Your task to perform on an android device: turn on bluetooth scan Image 0: 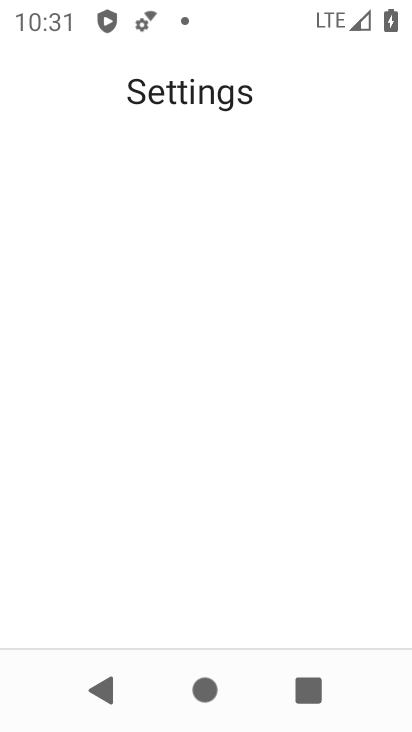
Step 0: drag from (206, 552) to (222, 242)
Your task to perform on an android device: turn on bluetooth scan Image 1: 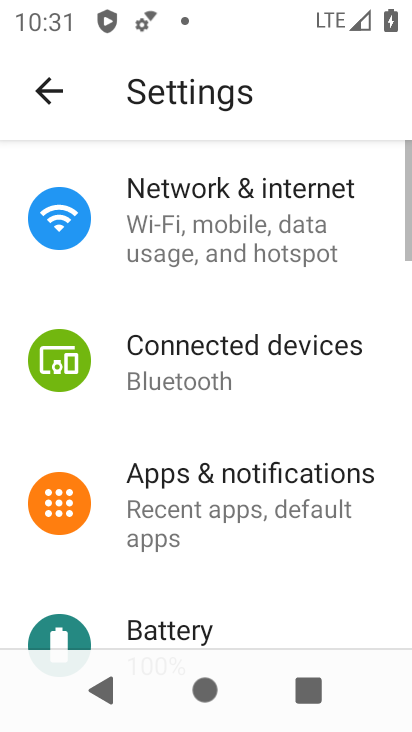
Step 1: drag from (231, 594) to (279, 234)
Your task to perform on an android device: turn on bluetooth scan Image 2: 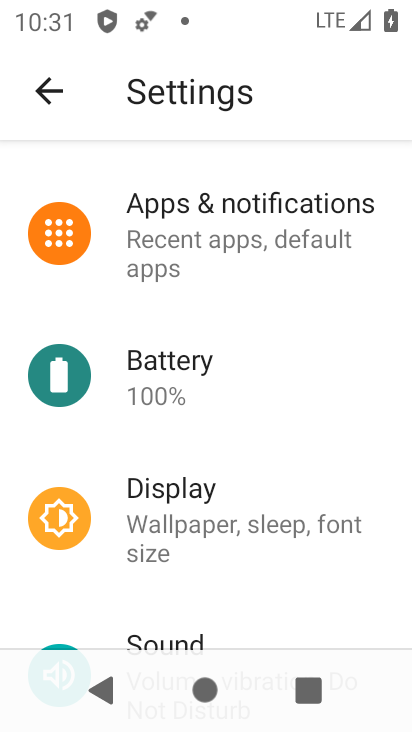
Step 2: drag from (222, 616) to (251, 370)
Your task to perform on an android device: turn on bluetooth scan Image 3: 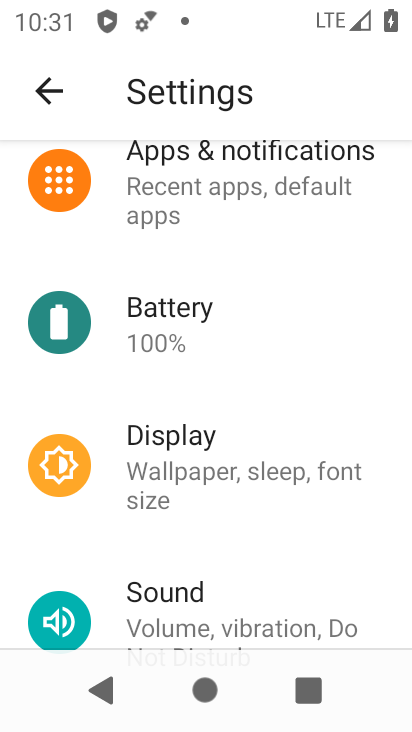
Step 3: drag from (250, 600) to (307, 334)
Your task to perform on an android device: turn on bluetooth scan Image 4: 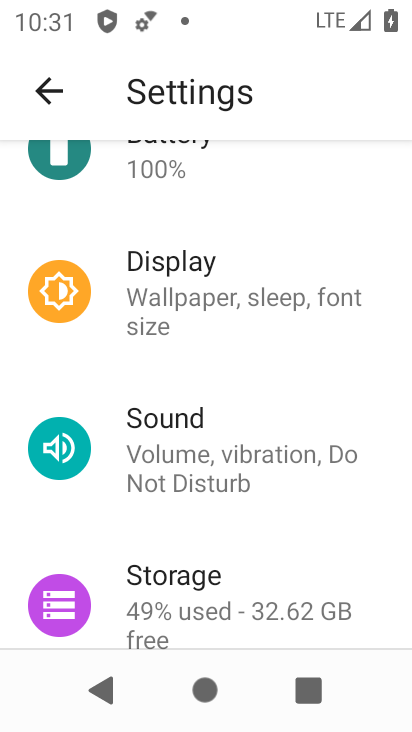
Step 4: drag from (253, 619) to (303, 328)
Your task to perform on an android device: turn on bluetooth scan Image 5: 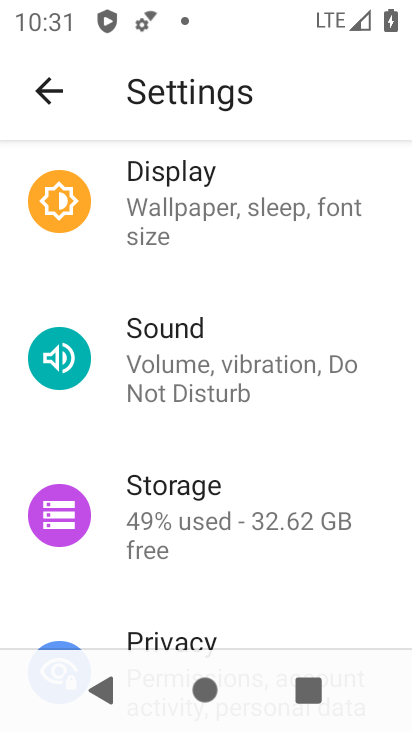
Step 5: drag from (217, 623) to (263, 360)
Your task to perform on an android device: turn on bluetooth scan Image 6: 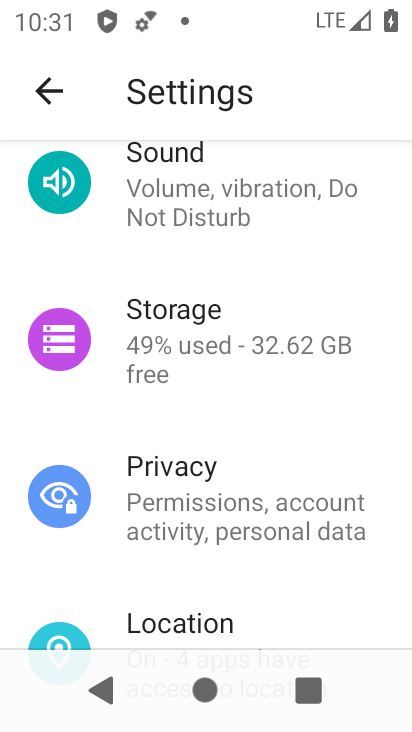
Step 6: click (219, 622)
Your task to perform on an android device: turn on bluetooth scan Image 7: 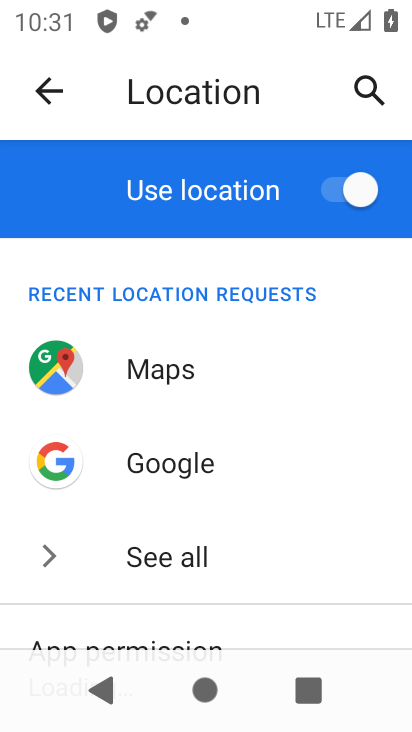
Step 7: drag from (239, 616) to (326, 329)
Your task to perform on an android device: turn on bluetooth scan Image 8: 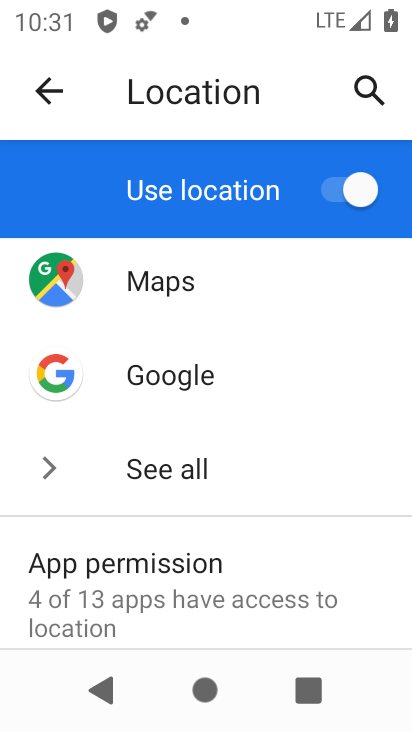
Step 8: drag from (217, 600) to (245, 442)
Your task to perform on an android device: turn on bluetooth scan Image 9: 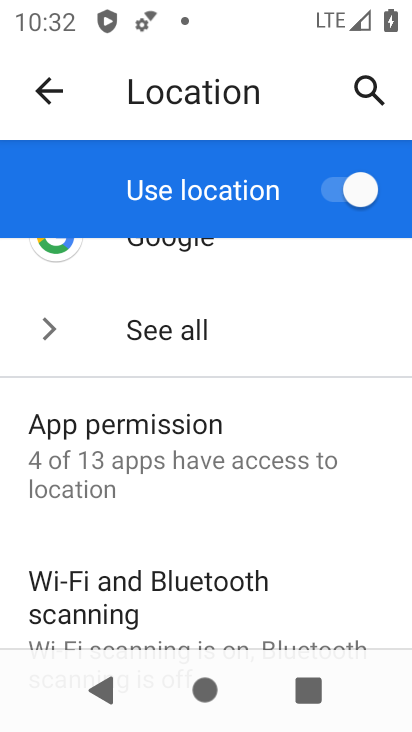
Step 9: drag from (230, 612) to (289, 308)
Your task to perform on an android device: turn on bluetooth scan Image 10: 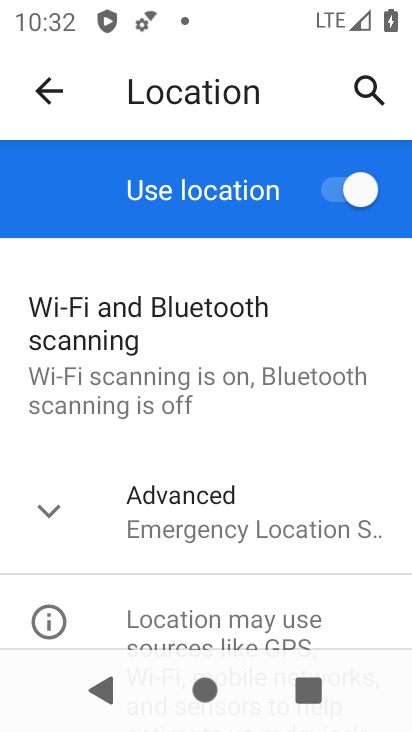
Step 10: click (142, 334)
Your task to perform on an android device: turn on bluetooth scan Image 11: 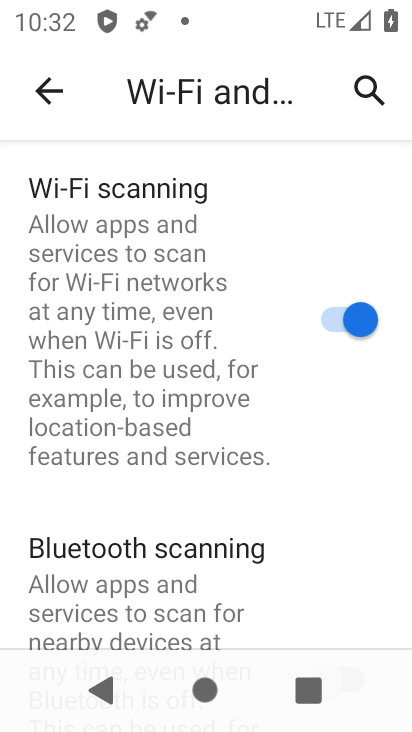
Step 11: drag from (181, 609) to (216, 243)
Your task to perform on an android device: turn on bluetooth scan Image 12: 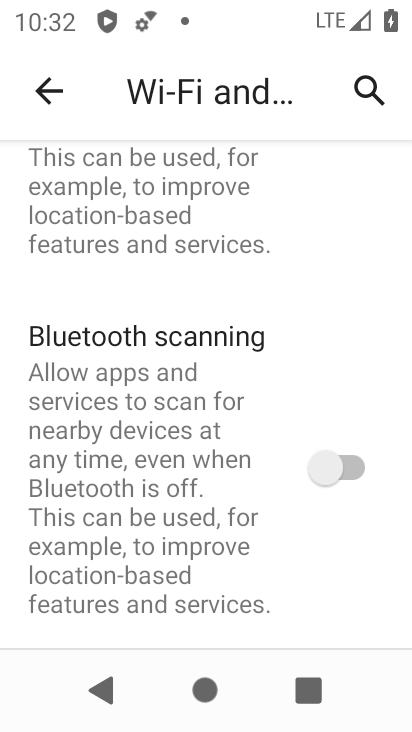
Step 12: click (340, 466)
Your task to perform on an android device: turn on bluetooth scan Image 13: 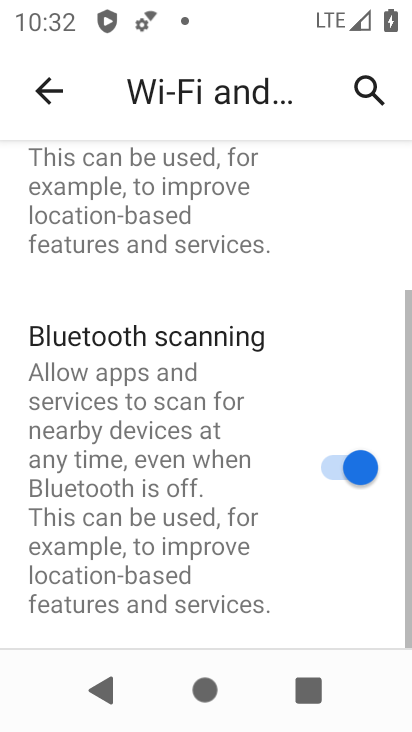
Step 13: task complete